Your task to perform on an android device: manage bookmarks in the chrome app Image 0: 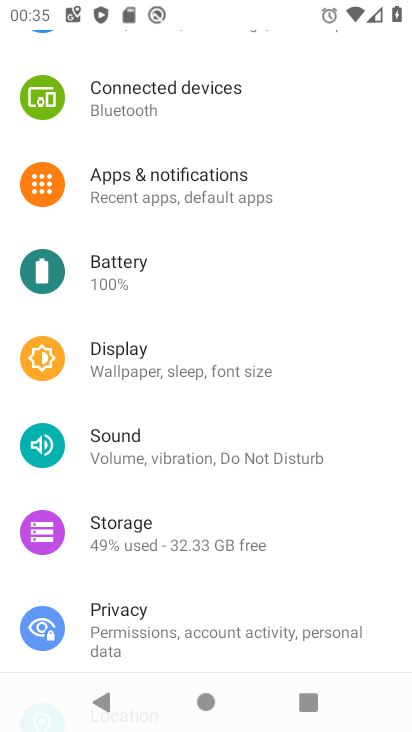
Step 0: press home button
Your task to perform on an android device: manage bookmarks in the chrome app Image 1: 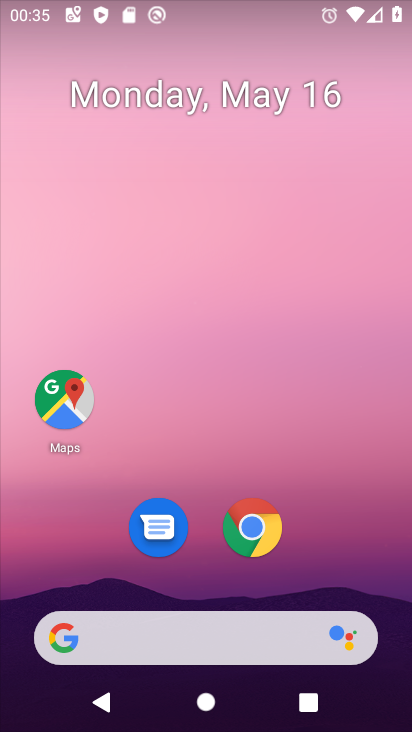
Step 1: click (269, 527)
Your task to perform on an android device: manage bookmarks in the chrome app Image 2: 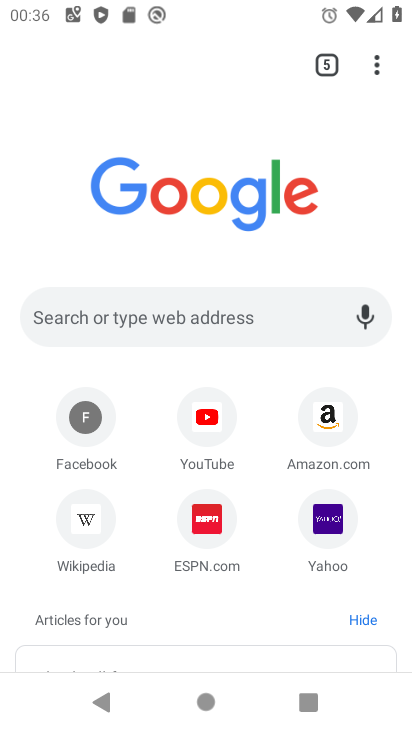
Step 2: click (388, 72)
Your task to perform on an android device: manage bookmarks in the chrome app Image 3: 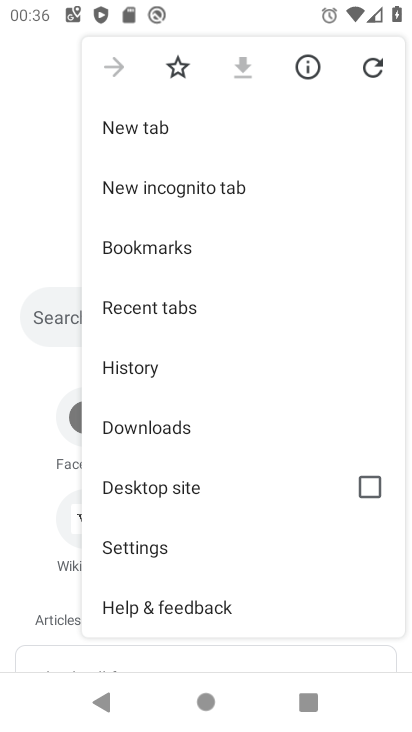
Step 3: click (195, 261)
Your task to perform on an android device: manage bookmarks in the chrome app Image 4: 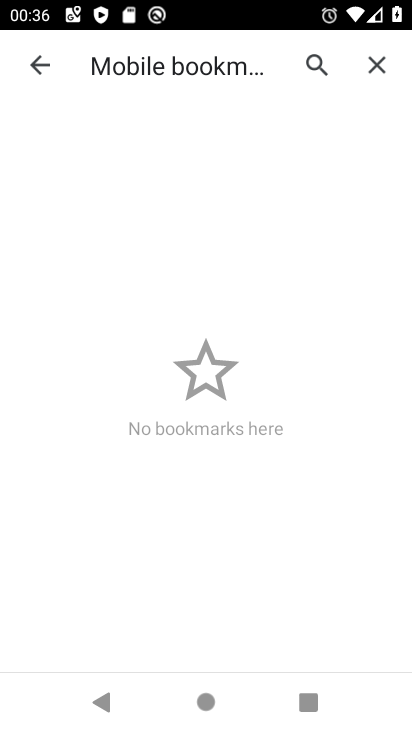
Step 4: task complete